Your task to perform on an android device: turn smart compose on in the gmail app Image 0: 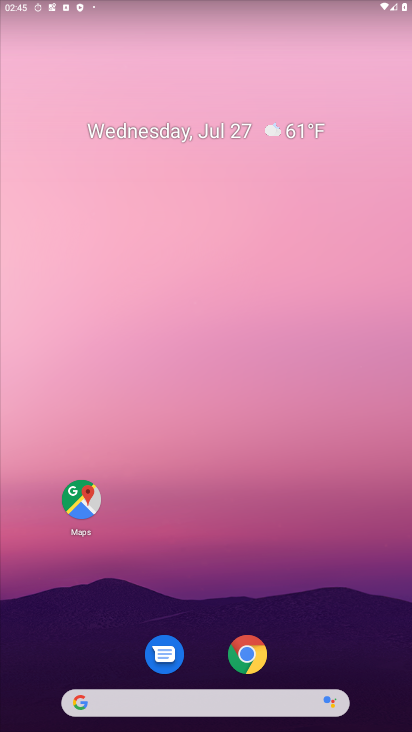
Step 0: drag from (251, 699) to (266, 236)
Your task to perform on an android device: turn smart compose on in the gmail app Image 1: 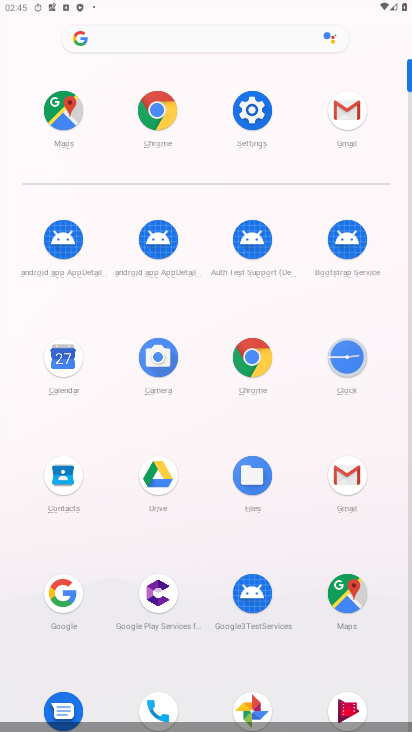
Step 1: click (357, 467)
Your task to perform on an android device: turn smart compose on in the gmail app Image 2: 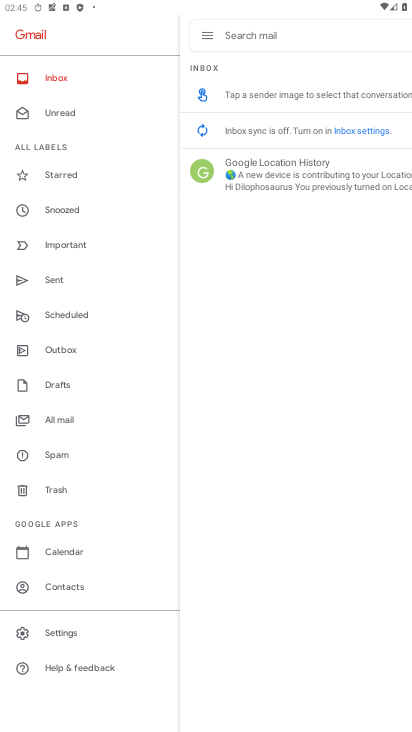
Step 2: click (40, 631)
Your task to perform on an android device: turn smart compose on in the gmail app Image 3: 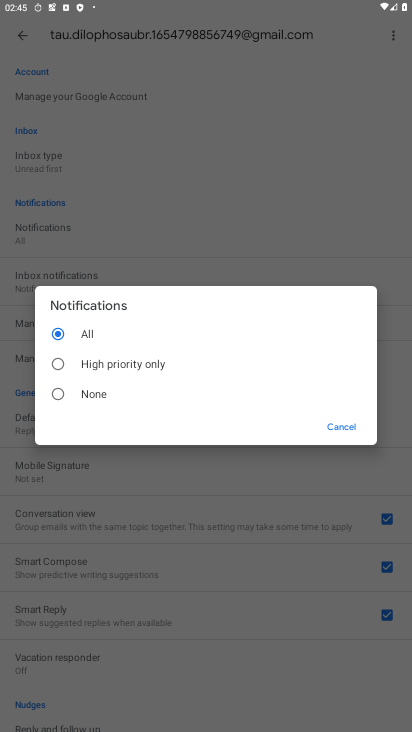
Step 3: click (339, 425)
Your task to perform on an android device: turn smart compose on in the gmail app Image 4: 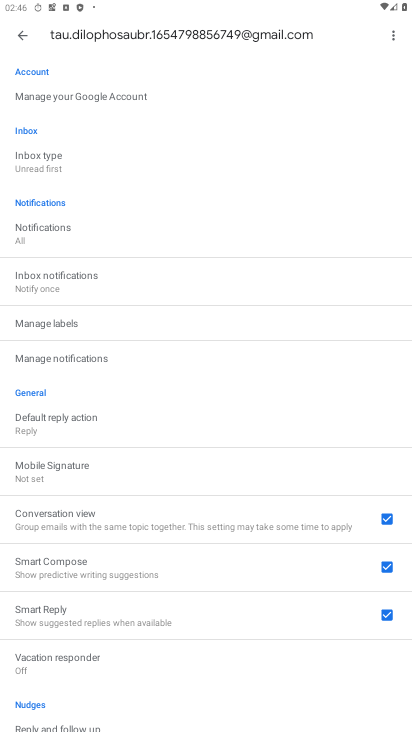
Step 4: task complete